Your task to perform on an android device: set an alarm Image 0: 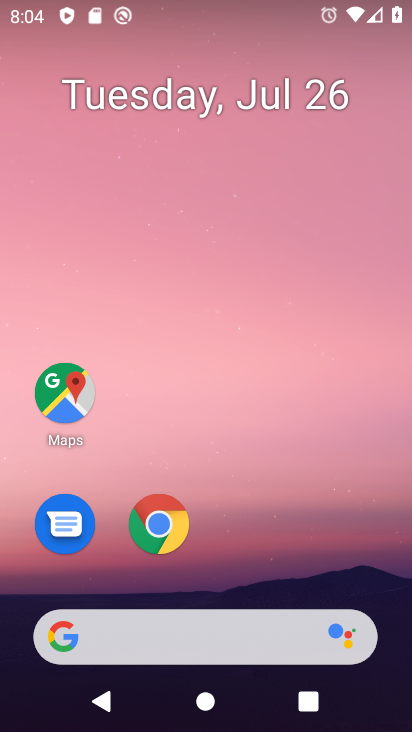
Step 0: drag from (285, 544) to (307, 27)
Your task to perform on an android device: set an alarm Image 1: 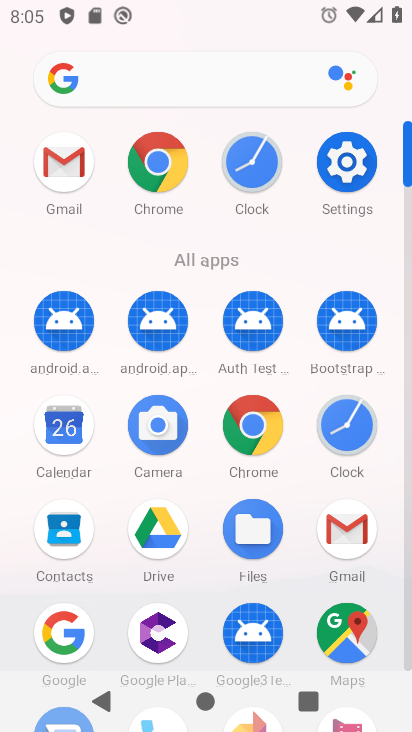
Step 1: click (263, 167)
Your task to perform on an android device: set an alarm Image 2: 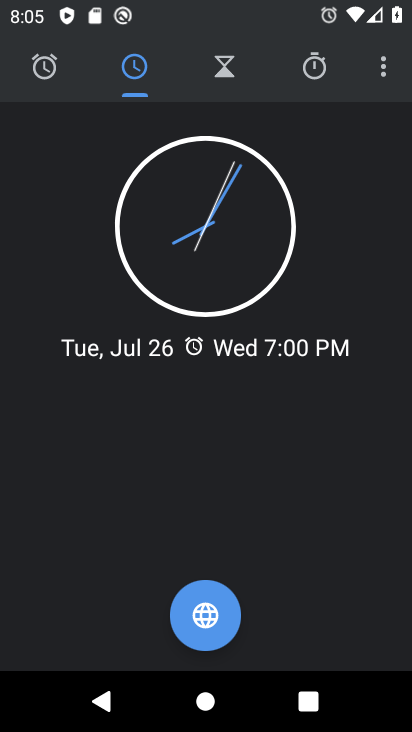
Step 2: click (45, 73)
Your task to perform on an android device: set an alarm Image 3: 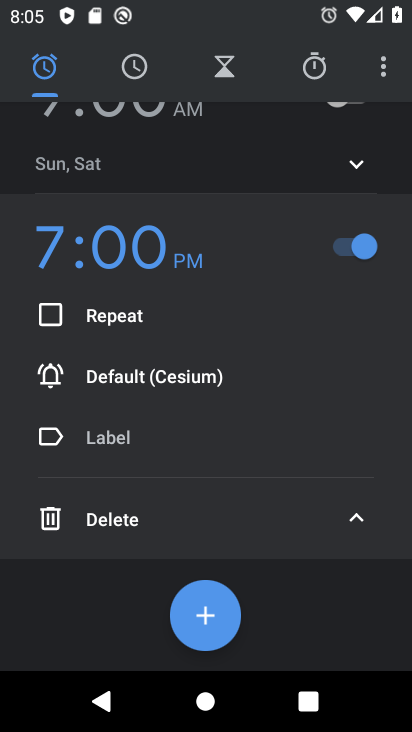
Step 3: click (209, 616)
Your task to perform on an android device: set an alarm Image 4: 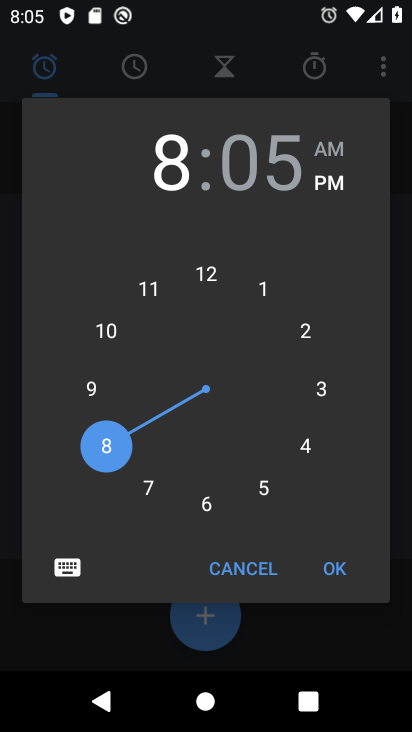
Step 4: click (272, 163)
Your task to perform on an android device: set an alarm Image 5: 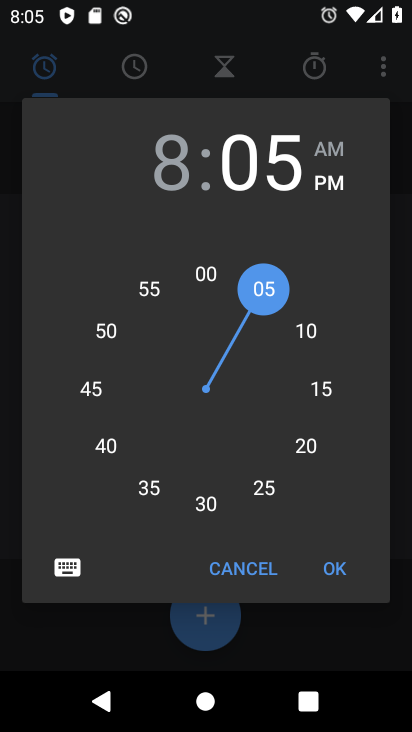
Step 5: click (204, 273)
Your task to perform on an android device: set an alarm Image 6: 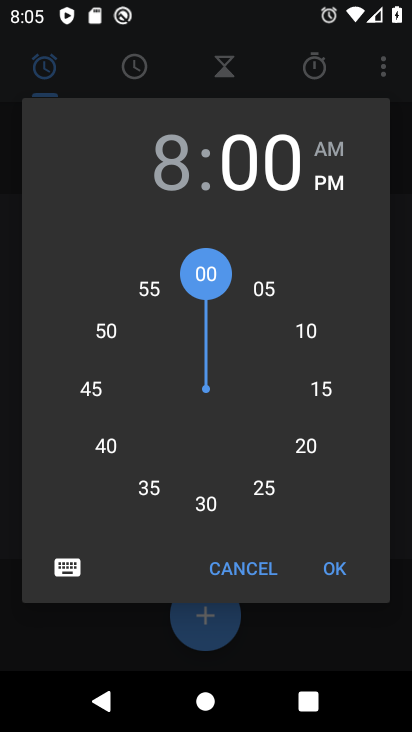
Step 6: click (330, 562)
Your task to perform on an android device: set an alarm Image 7: 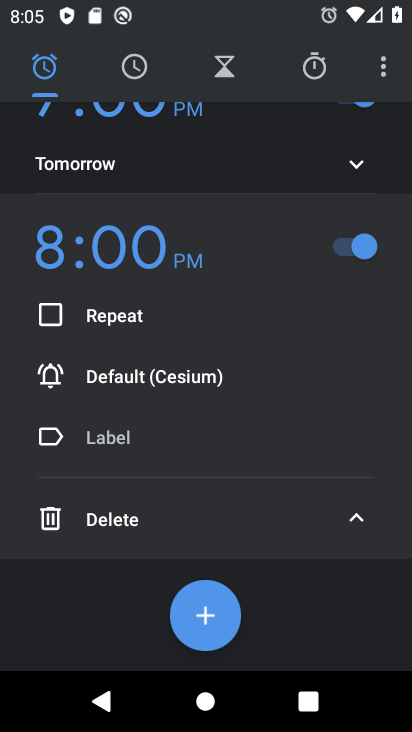
Step 7: task complete